Your task to perform on an android device: Do I have any events tomorrow? Image 0: 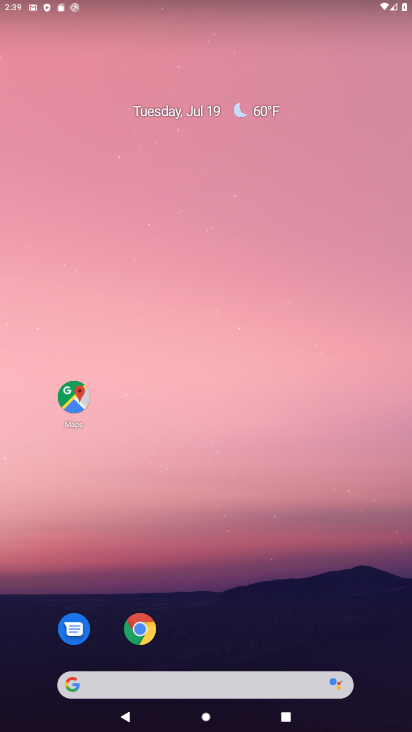
Step 0: drag from (229, 491) to (306, 96)
Your task to perform on an android device: Do I have any events tomorrow? Image 1: 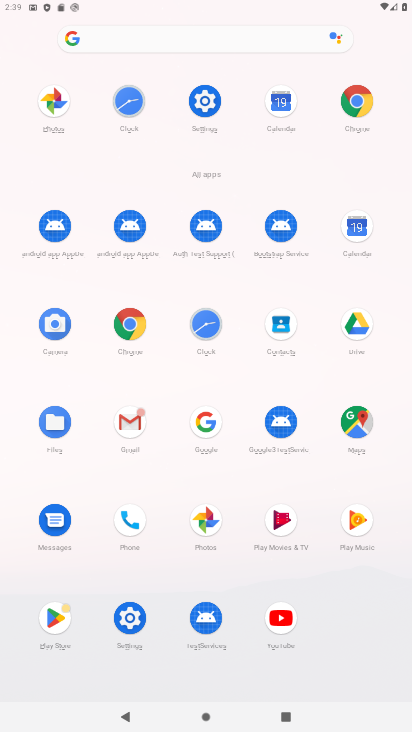
Step 1: click (357, 647)
Your task to perform on an android device: Do I have any events tomorrow? Image 2: 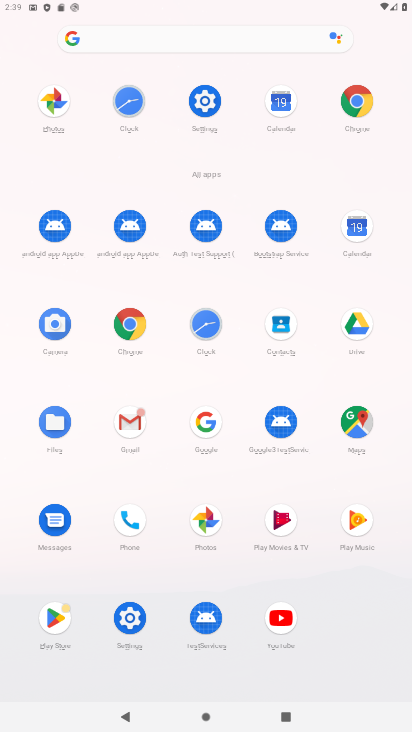
Step 2: click (362, 223)
Your task to perform on an android device: Do I have any events tomorrow? Image 3: 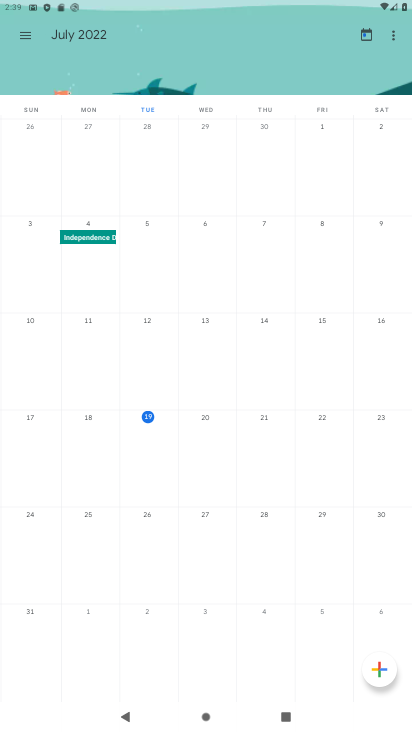
Step 3: task complete